Your task to perform on an android device: Go to Google maps Image 0: 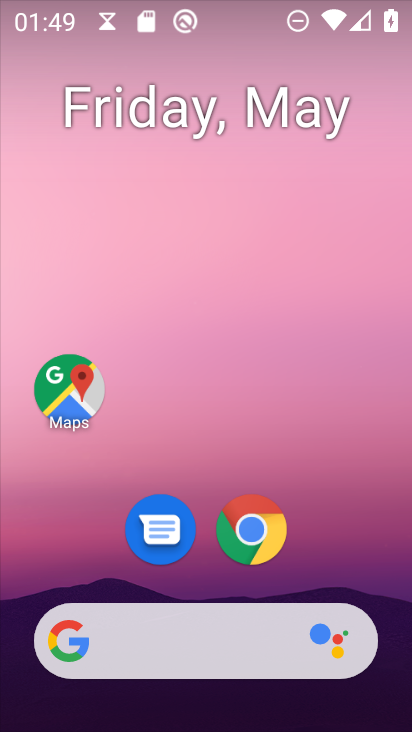
Step 0: drag from (327, 561) to (281, 258)
Your task to perform on an android device: Go to Google maps Image 1: 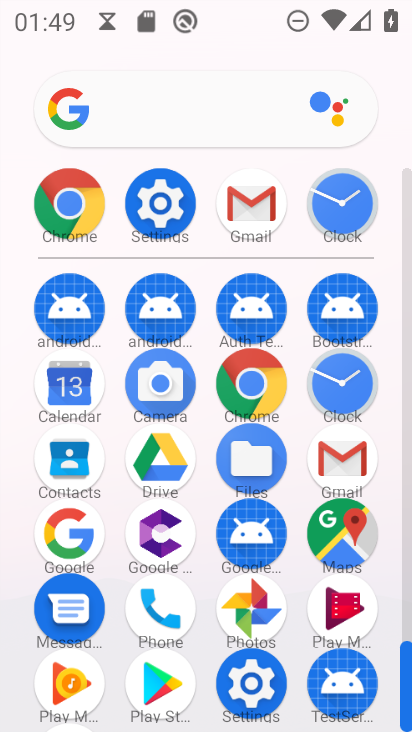
Step 1: click (317, 532)
Your task to perform on an android device: Go to Google maps Image 2: 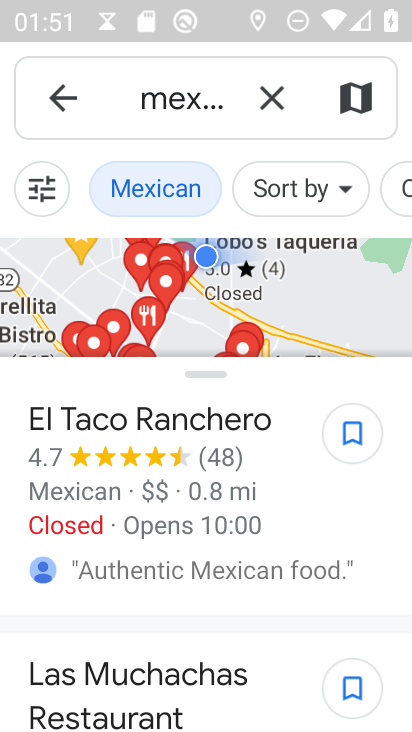
Step 2: click (287, 92)
Your task to perform on an android device: Go to Google maps Image 3: 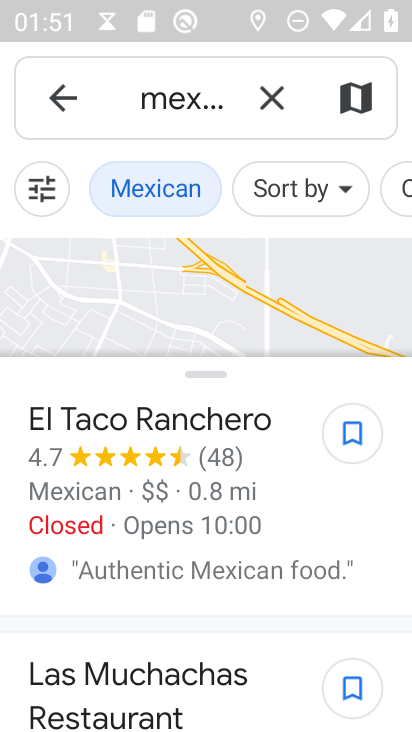
Step 3: task complete